Your task to perform on an android device: clear all cookies in the chrome app Image 0: 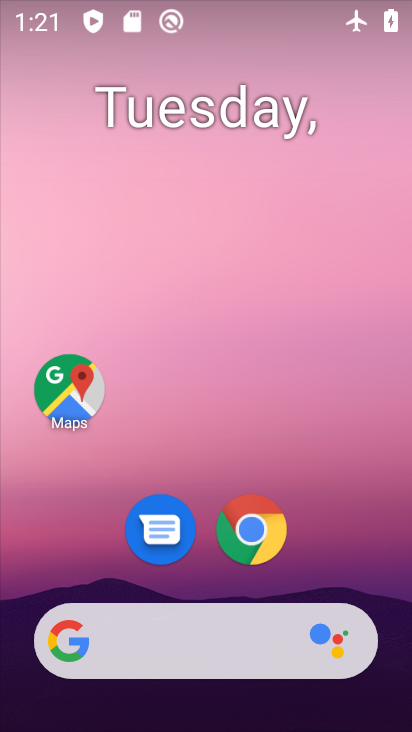
Step 0: click (254, 533)
Your task to perform on an android device: clear all cookies in the chrome app Image 1: 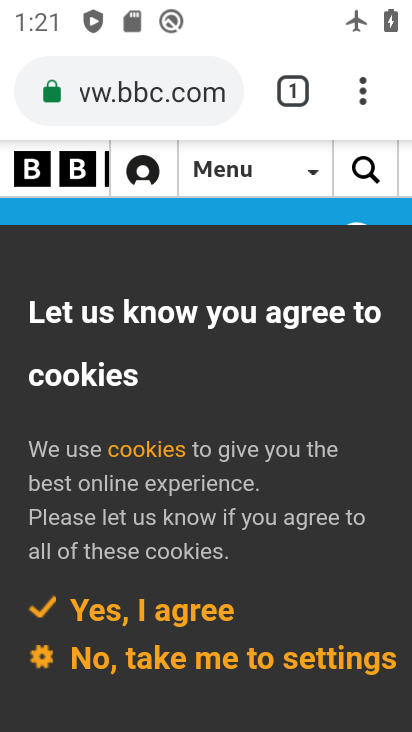
Step 1: click (357, 107)
Your task to perform on an android device: clear all cookies in the chrome app Image 2: 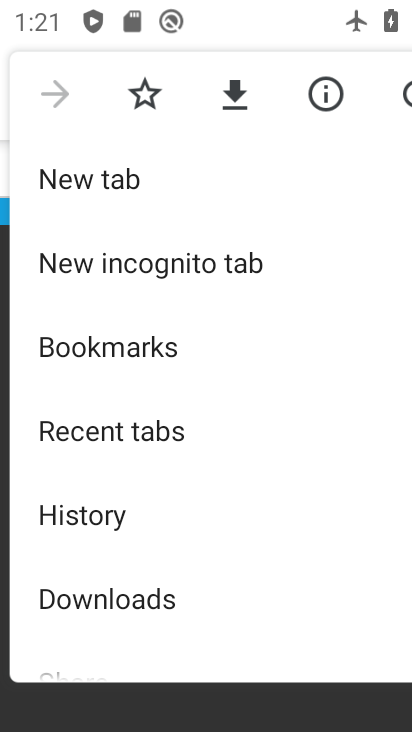
Step 2: click (167, 528)
Your task to perform on an android device: clear all cookies in the chrome app Image 3: 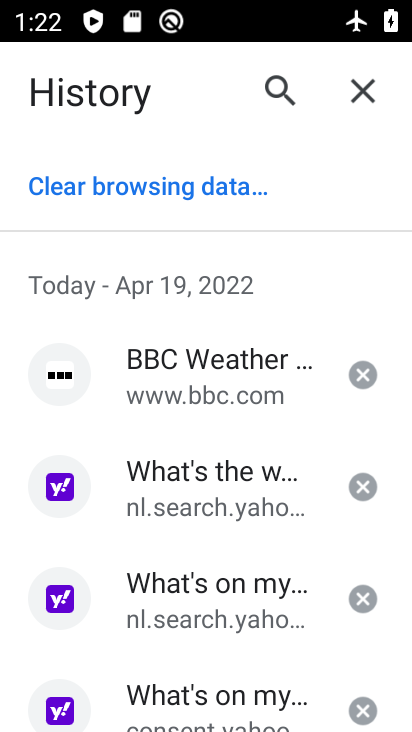
Step 3: click (192, 180)
Your task to perform on an android device: clear all cookies in the chrome app Image 4: 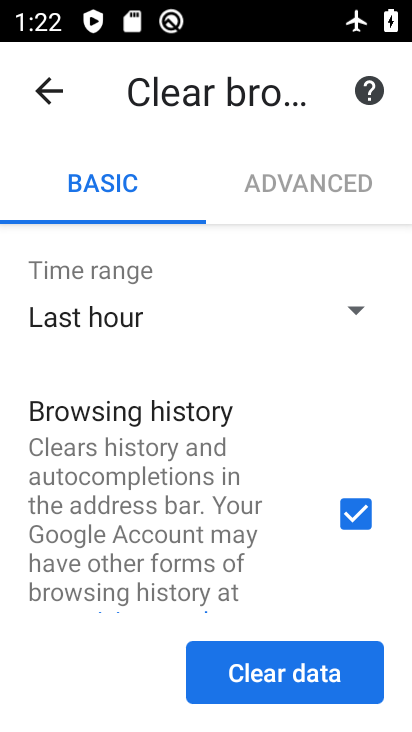
Step 4: click (351, 529)
Your task to perform on an android device: clear all cookies in the chrome app Image 5: 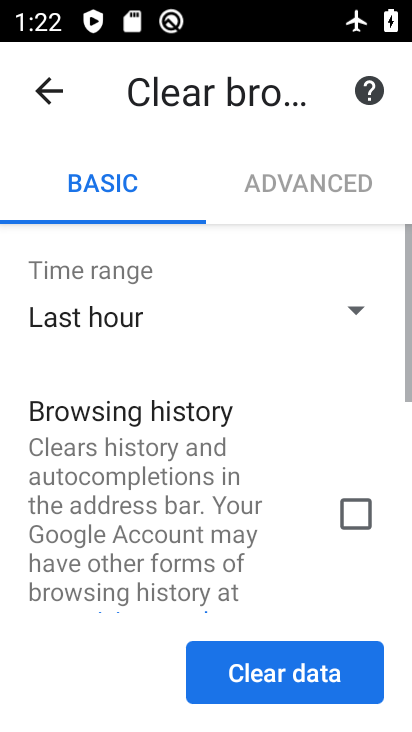
Step 5: drag from (317, 570) to (270, 200)
Your task to perform on an android device: clear all cookies in the chrome app Image 6: 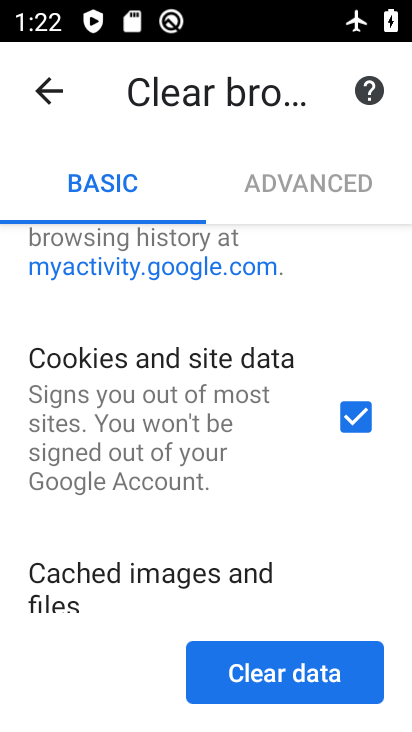
Step 6: click (313, 668)
Your task to perform on an android device: clear all cookies in the chrome app Image 7: 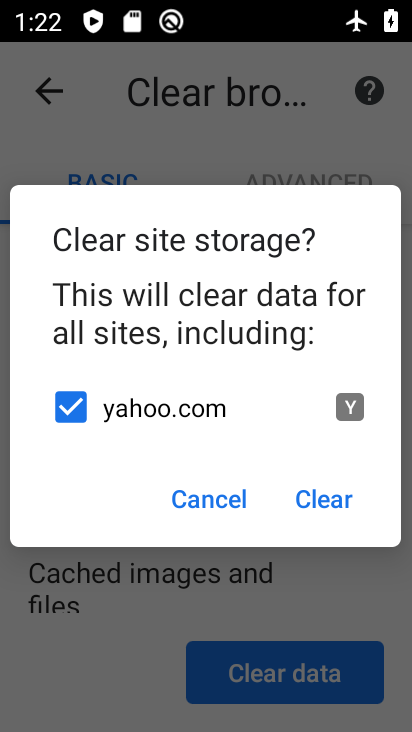
Step 7: click (331, 520)
Your task to perform on an android device: clear all cookies in the chrome app Image 8: 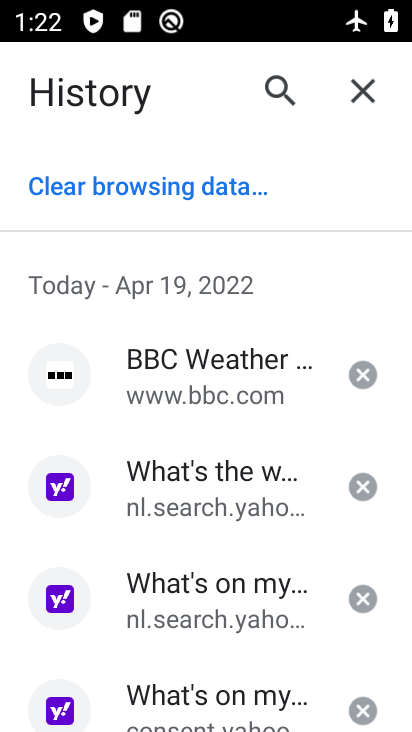
Step 8: task complete